Your task to perform on an android device: open chrome and create a bookmark for the current page Image 0: 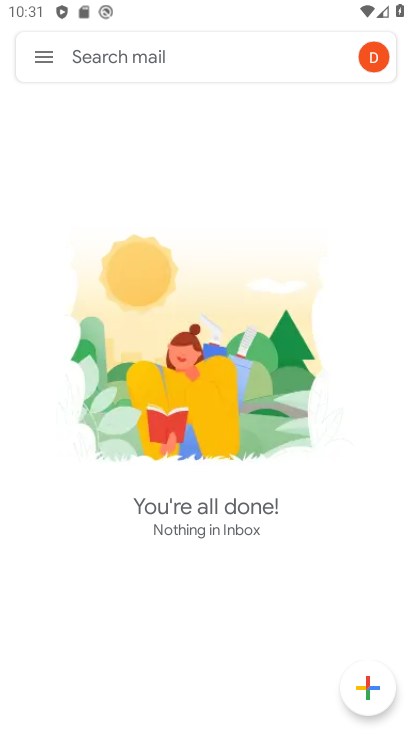
Step 0: task complete